Your task to perform on an android device: Open Android settings Image 0: 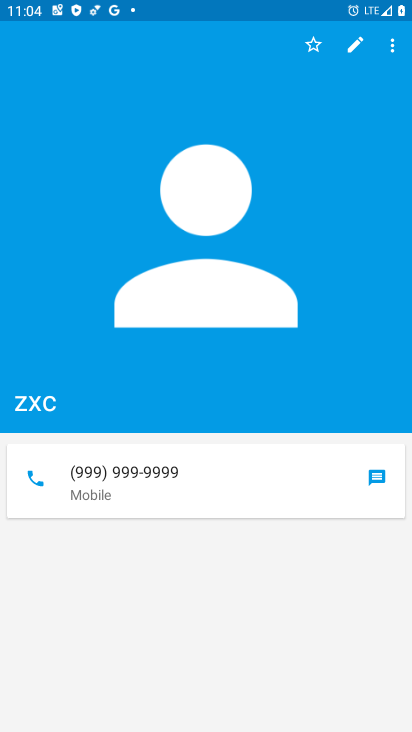
Step 0: press home button
Your task to perform on an android device: Open Android settings Image 1: 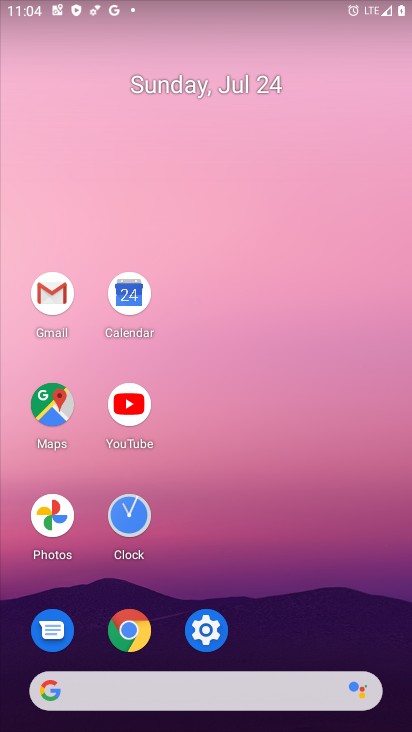
Step 1: click (201, 631)
Your task to perform on an android device: Open Android settings Image 2: 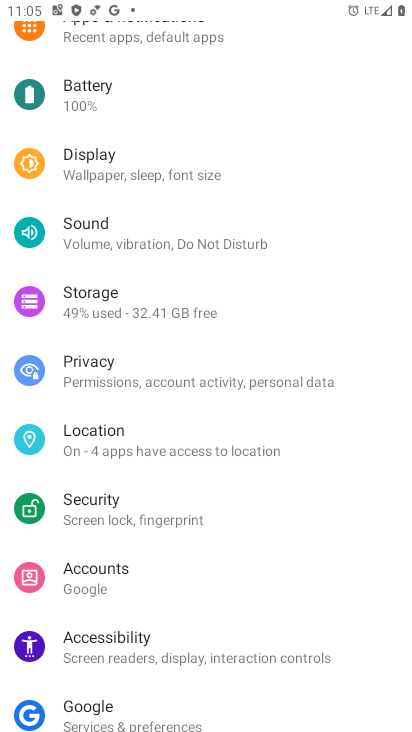
Step 2: task complete